Your task to perform on an android device: toggle pop-ups in chrome Image 0: 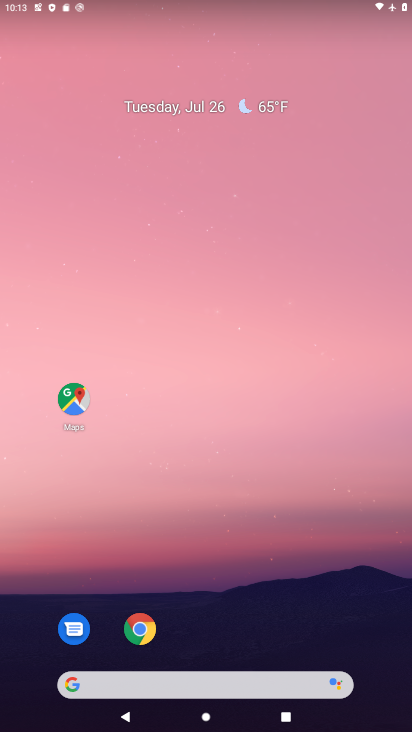
Step 0: drag from (317, 595) to (158, 27)
Your task to perform on an android device: toggle pop-ups in chrome Image 1: 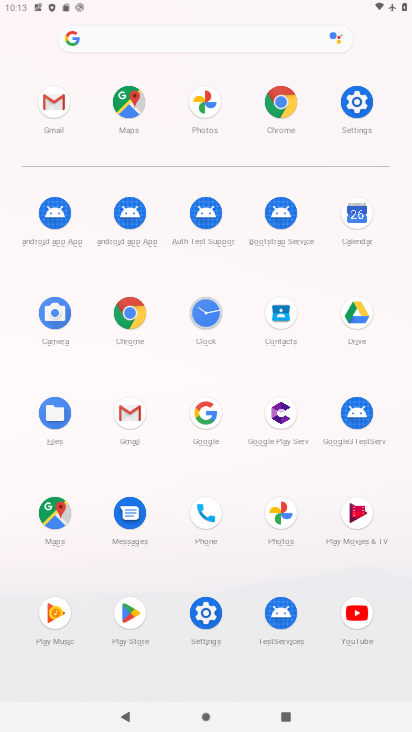
Step 1: click (282, 103)
Your task to perform on an android device: toggle pop-ups in chrome Image 2: 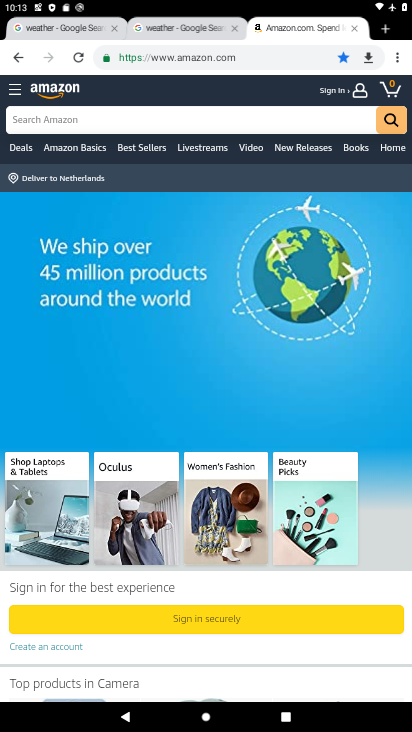
Step 2: click (398, 54)
Your task to perform on an android device: toggle pop-ups in chrome Image 3: 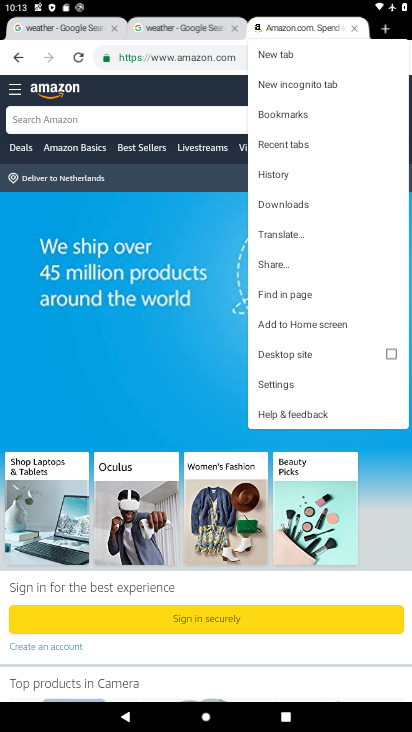
Step 3: click (304, 373)
Your task to perform on an android device: toggle pop-ups in chrome Image 4: 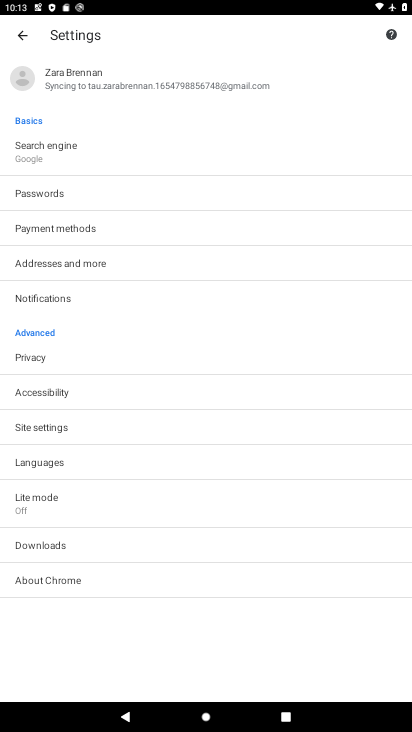
Step 4: click (46, 427)
Your task to perform on an android device: toggle pop-ups in chrome Image 5: 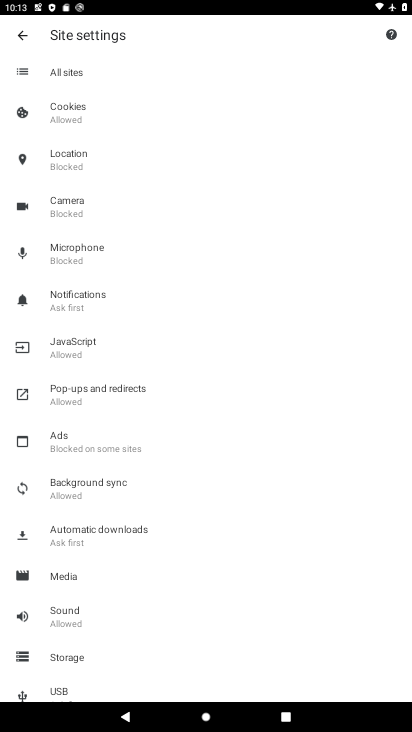
Step 5: click (119, 397)
Your task to perform on an android device: toggle pop-ups in chrome Image 6: 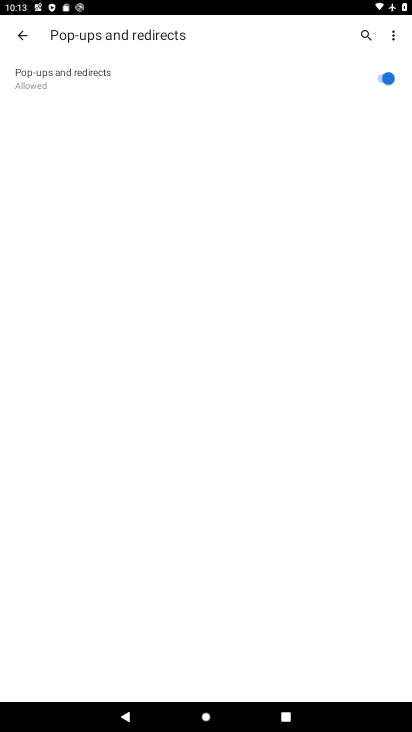
Step 6: click (381, 73)
Your task to perform on an android device: toggle pop-ups in chrome Image 7: 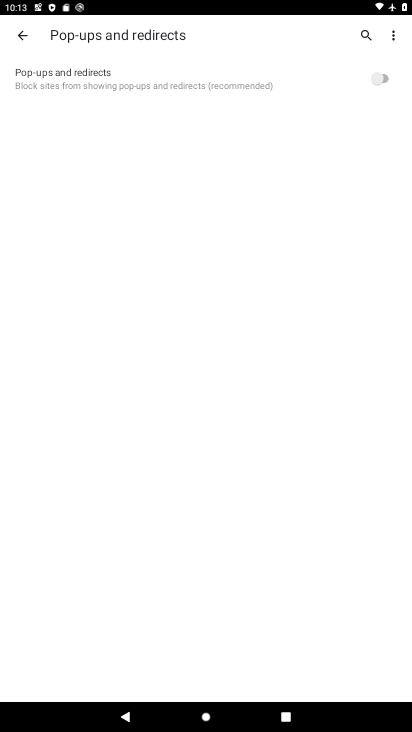
Step 7: task complete